Your task to perform on an android device: set default search engine in the chrome app Image 0: 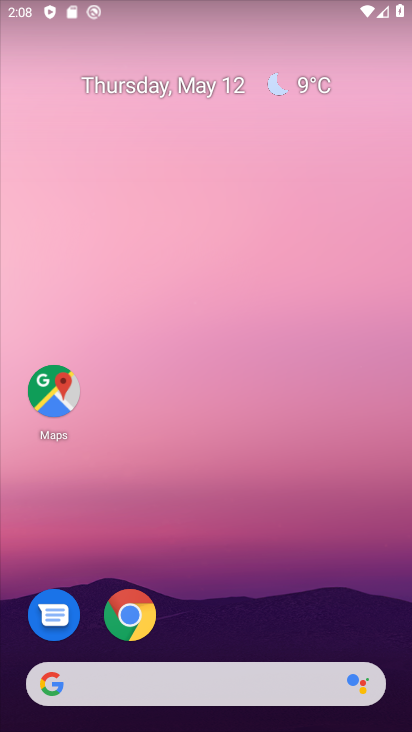
Step 0: click (138, 612)
Your task to perform on an android device: set default search engine in the chrome app Image 1: 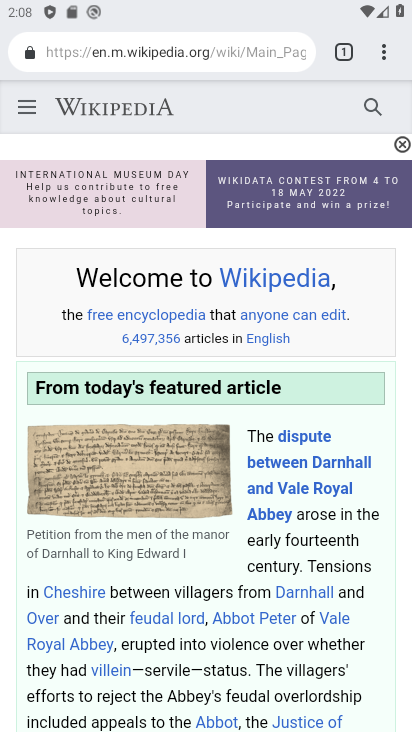
Step 1: drag from (380, 51) to (225, 633)
Your task to perform on an android device: set default search engine in the chrome app Image 2: 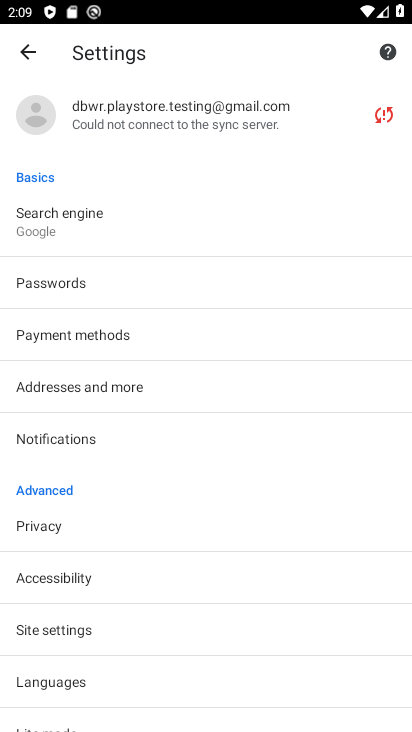
Step 2: click (59, 230)
Your task to perform on an android device: set default search engine in the chrome app Image 3: 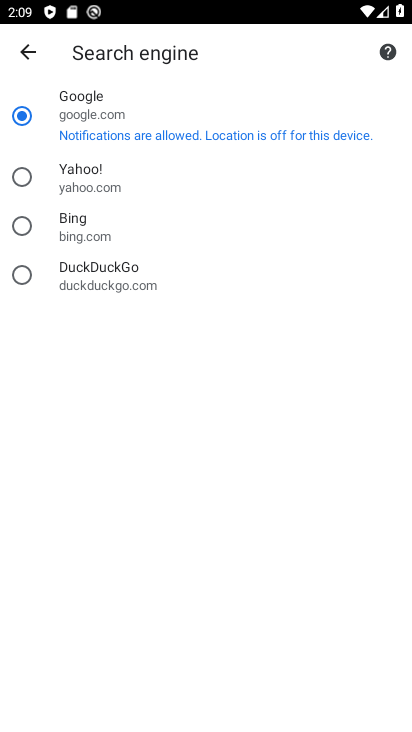
Step 3: click (65, 306)
Your task to perform on an android device: set default search engine in the chrome app Image 4: 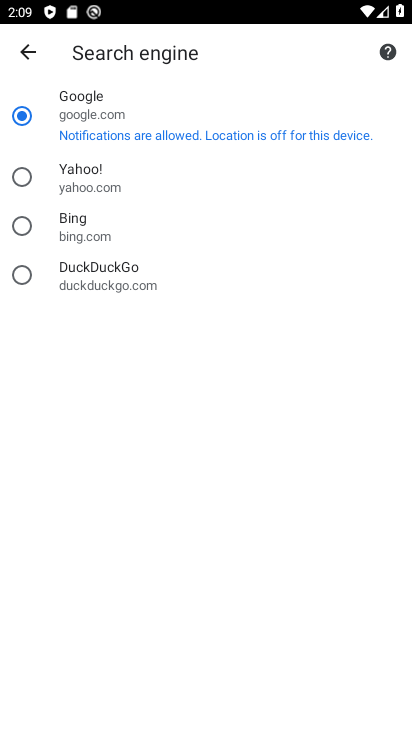
Step 4: click (117, 272)
Your task to perform on an android device: set default search engine in the chrome app Image 5: 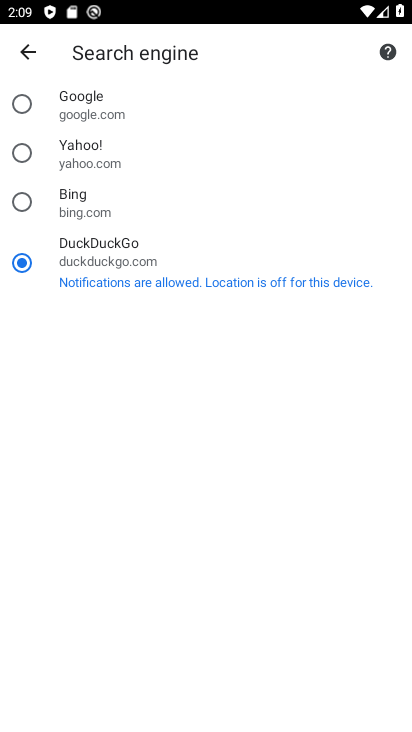
Step 5: task complete